Your task to perform on an android device: Go to wifi settings Image 0: 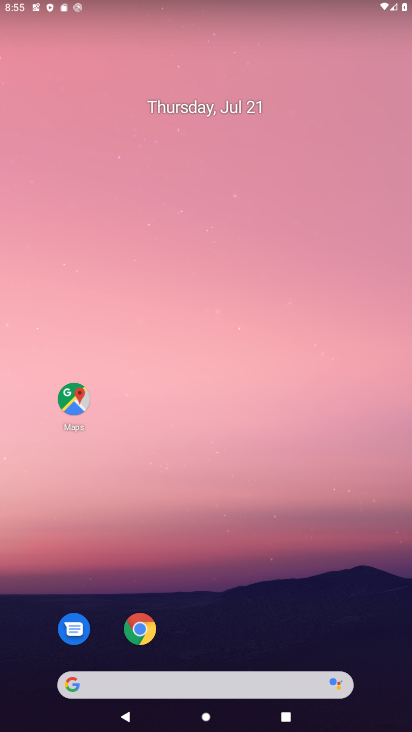
Step 0: drag from (225, 15) to (261, 674)
Your task to perform on an android device: Go to wifi settings Image 1: 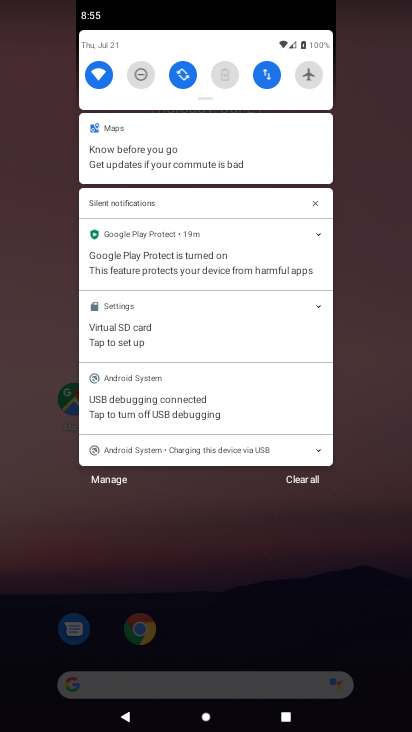
Step 1: click (99, 77)
Your task to perform on an android device: Go to wifi settings Image 2: 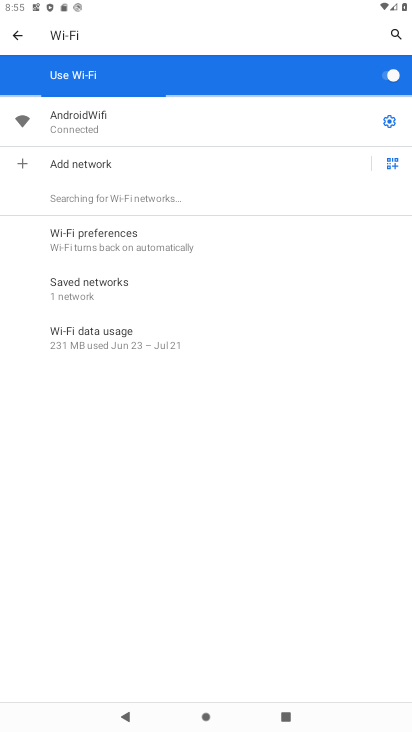
Step 2: task complete